Your task to perform on an android device: set the timer Image 0: 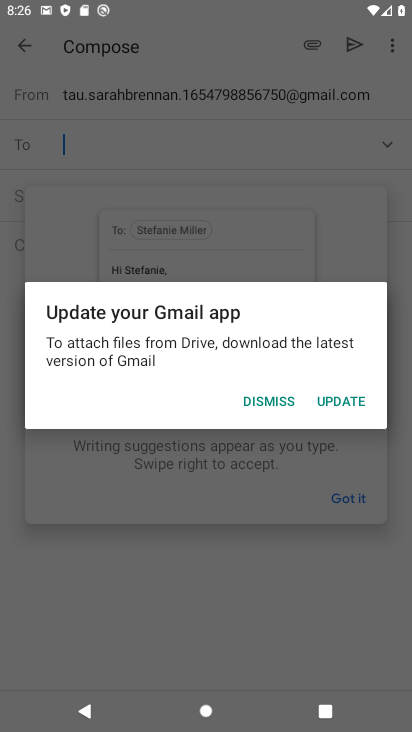
Step 0: press home button
Your task to perform on an android device: set the timer Image 1: 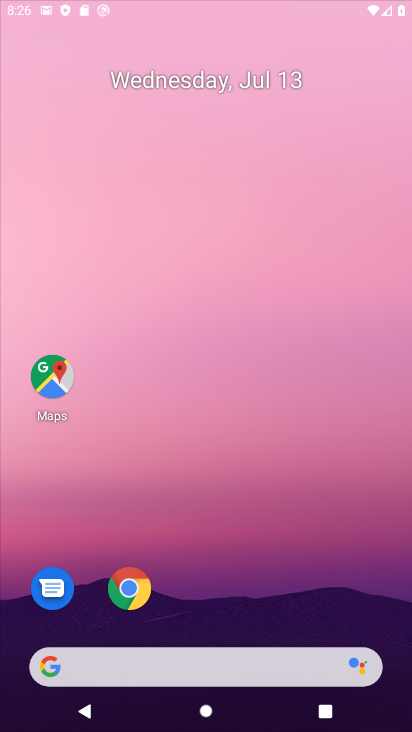
Step 1: drag from (232, 653) to (225, 169)
Your task to perform on an android device: set the timer Image 2: 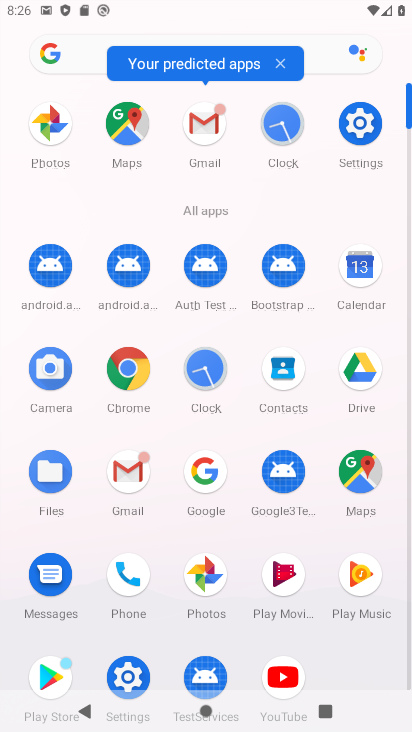
Step 2: click (272, 106)
Your task to perform on an android device: set the timer Image 3: 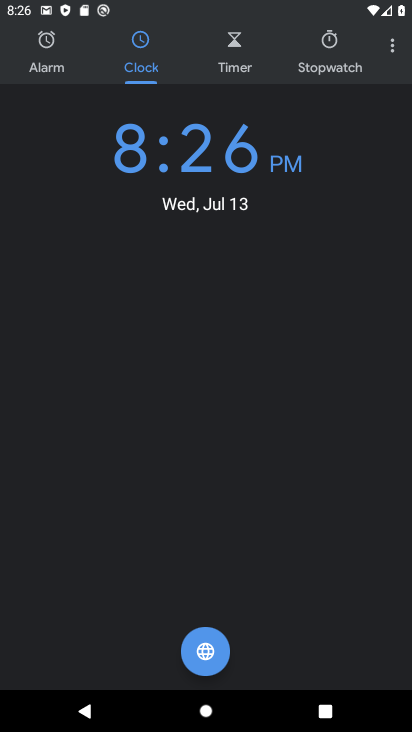
Step 3: click (237, 48)
Your task to perform on an android device: set the timer Image 4: 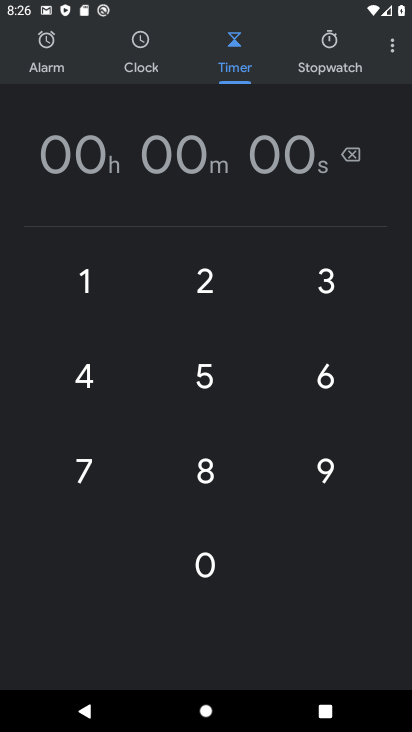
Step 4: click (115, 134)
Your task to perform on an android device: set the timer Image 5: 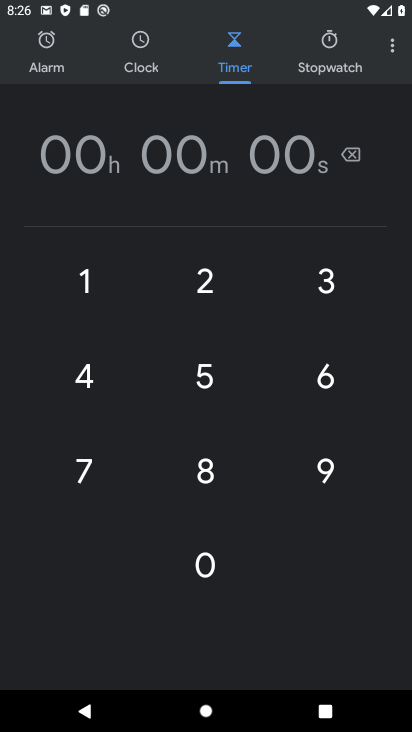
Step 5: type "566555556"
Your task to perform on an android device: set the timer Image 6: 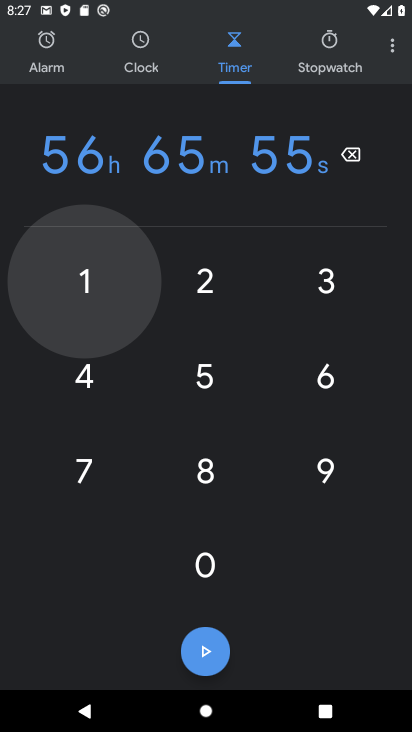
Step 6: task complete